Your task to perform on an android device: Open CNN.com Image 0: 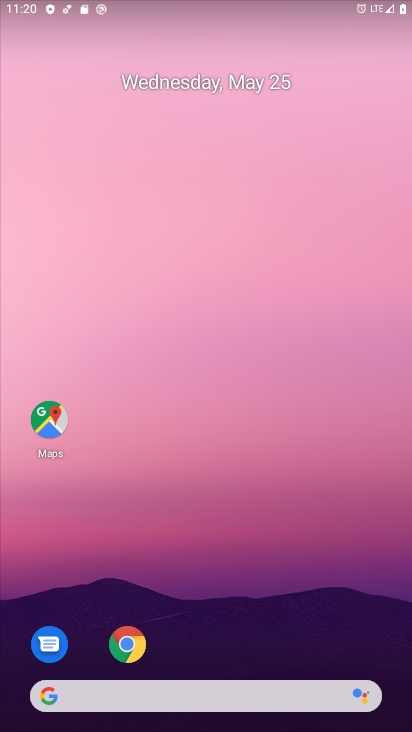
Step 0: click (128, 644)
Your task to perform on an android device: Open CNN.com Image 1: 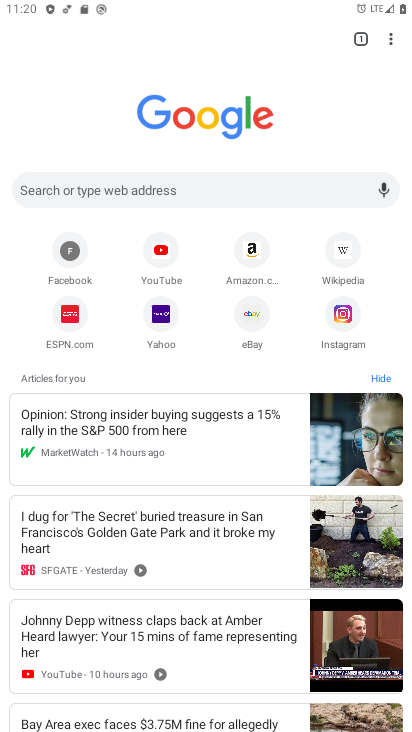
Step 1: click (237, 194)
Your task to perform on an android device: Open CNN.com Image 2: 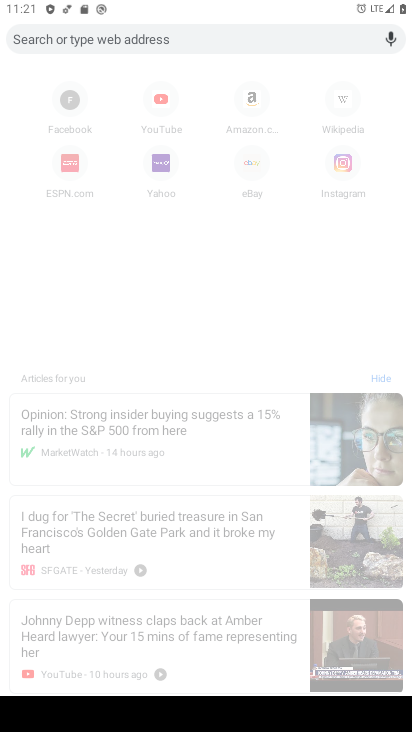
Step 2: type "CNN.com"
Your task to perform on an android device: Open CNN.com Image 3: 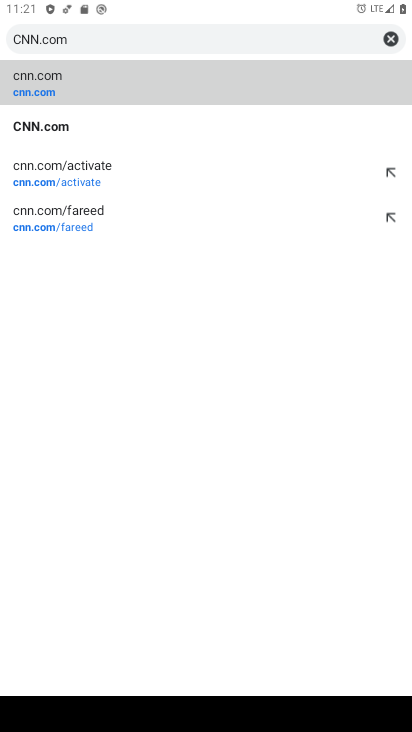
Step 3: click (59, 130)
Your task to perform on an android device: Open CNN.com Image 4: 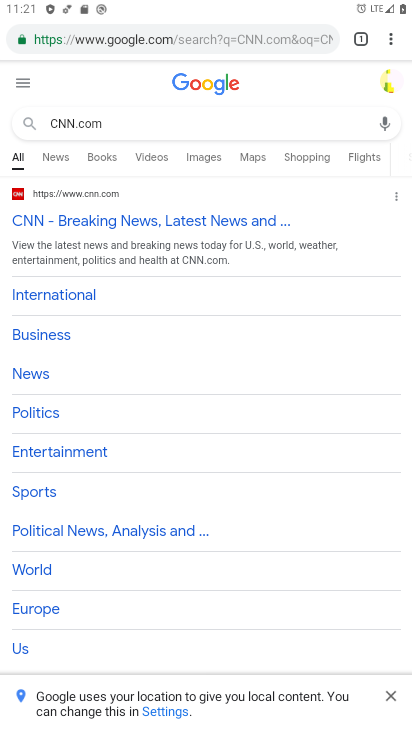
Step 4: click (77, 220)
Your task to perform on an android device: Open CNN.com Image 5: 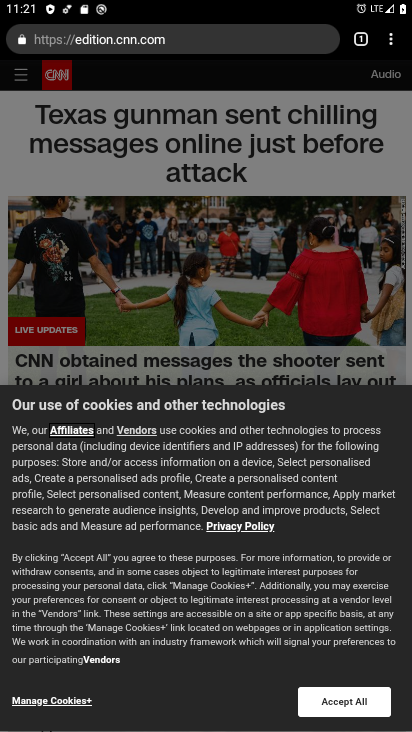
Step 5: click (351, 697)
Your task to perform on an android device: Open CNN.com Image 6: 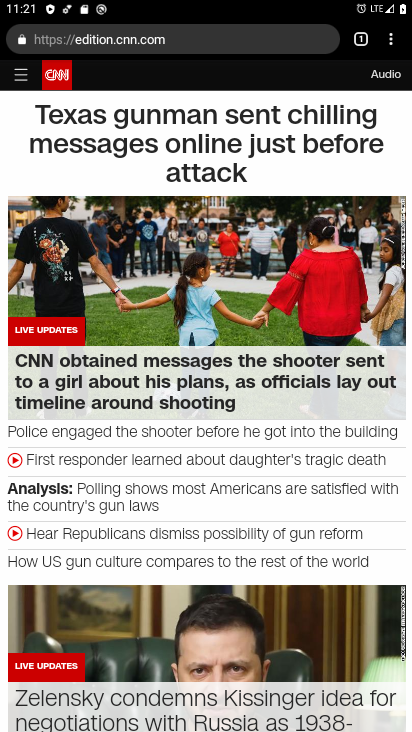
Step 6: task complete